Your task to perform on an android device: turn on bluetooth scan Image 0: 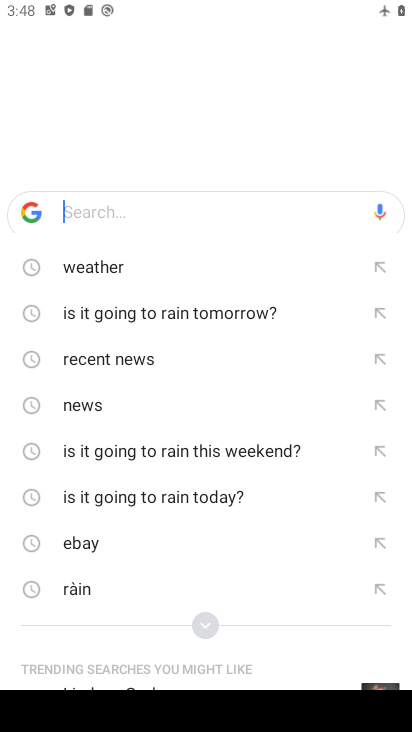
Step 0: press home button
Your task to perform on an android device: turn on bluetooth scan Image 1: 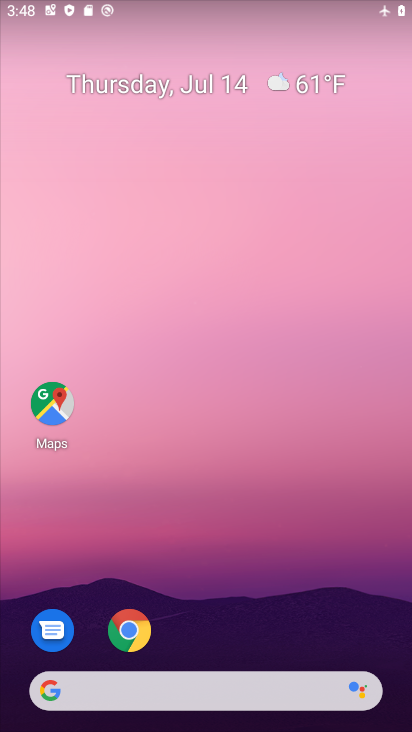
Step 1: drag from (312, 598) to (344, 175)
Your task to perform on an android device: turn on bluetooth scan Image 2: 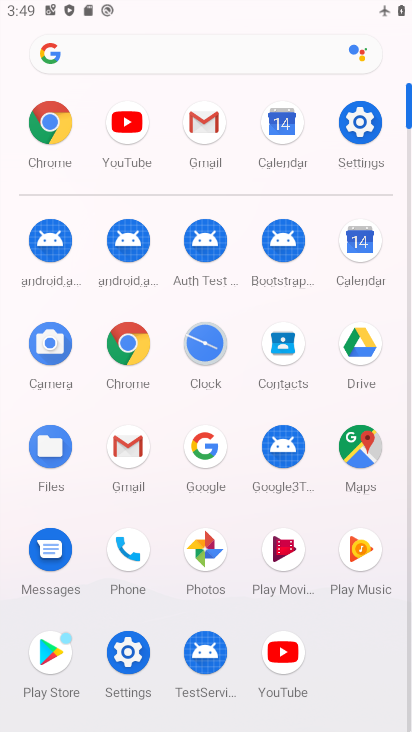
Step 2: click (130, 645)
Your task to perform on an android device: turn on bluetooth scan Image 3: 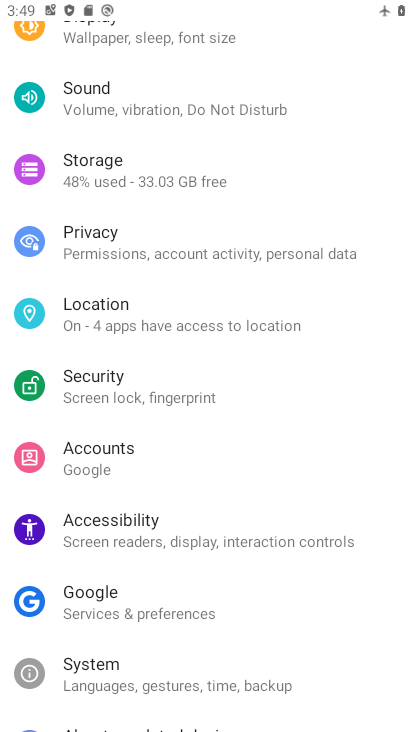
Step 3: click (138, 309)
Your task to perform on an android device: turn on bluetooth scan Image 4: 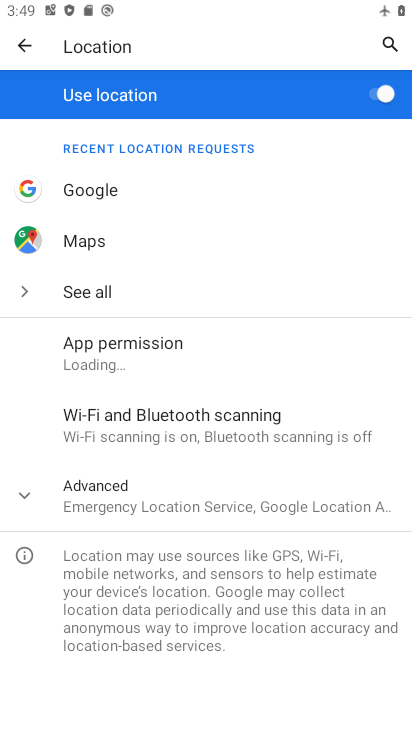
Step 4: click (144, 434)
Your task to perform on an android device: turn on bluetooth scan Image 5: 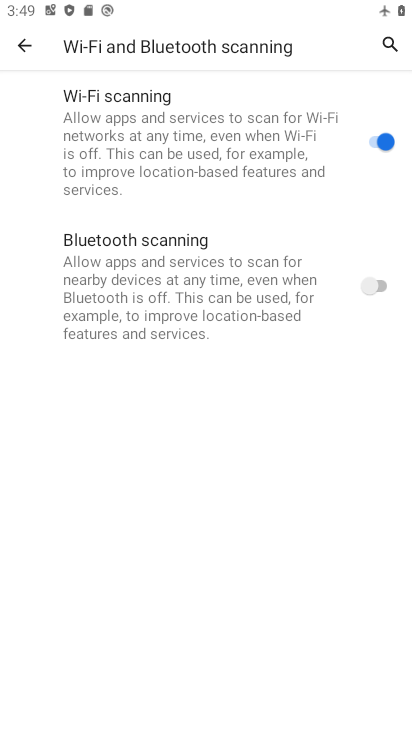
Step 5: click (368, 289)
Your task to perform on an android device: turn on bluetooth scan Image 6: 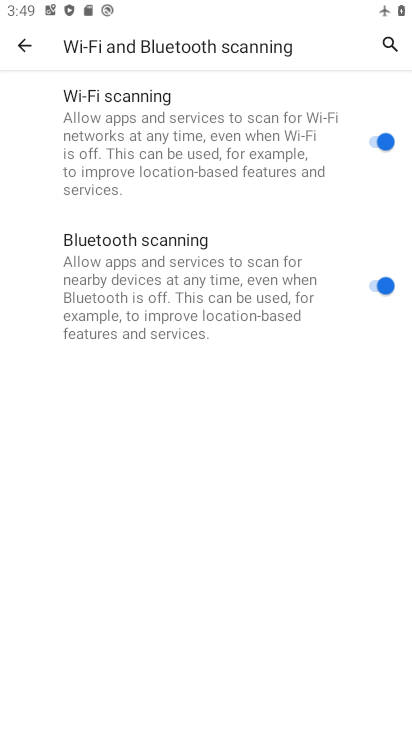
Step 6: task complete